Your task to perform on an android device: Open Youtube and go to the subscriptions tab Image 0: 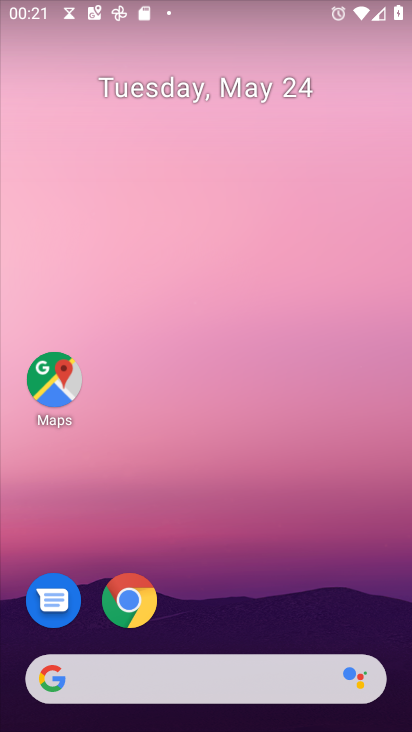
Step 0: drag from (212, 730) to (218, 112)
Your task to perform on an android device: Open Youtube and go to the subscriptions tab Image 1: 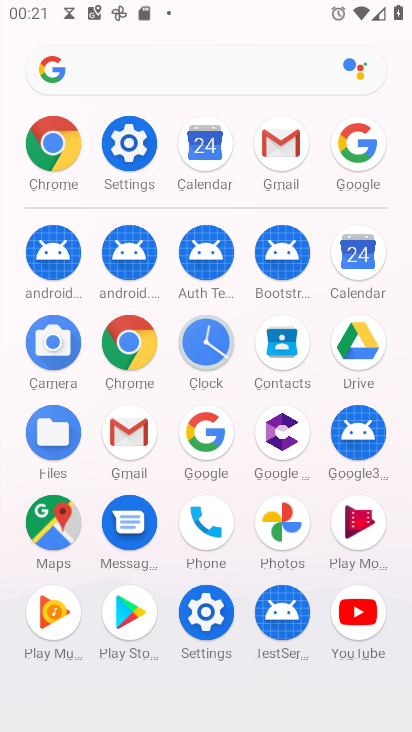
Step 1: click (364, 608)
Your task to perform on an android device: Open Youtube and go to the subscriptions tab Image 2: 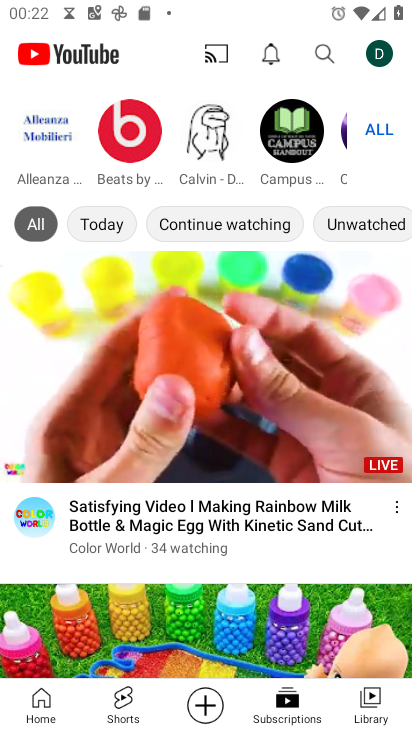
Step 2: task complete